Your task to perform on an android device: Toggle the flashlight Image 0: 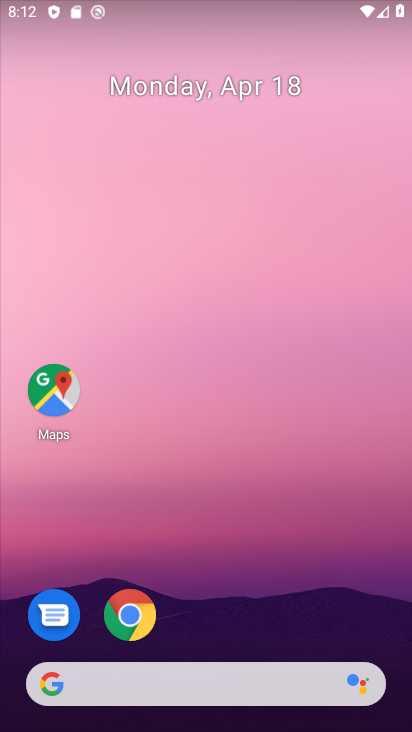
Step 0: task impossible